Your task to perform on an android device: turn on airplane mode Image 0: 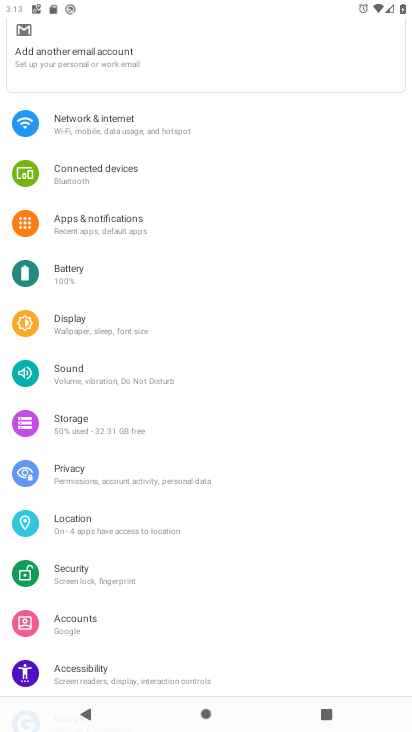
Step 0: click (305, 118)
Your task to perform on an android device: turn on airplane mode Image 1: 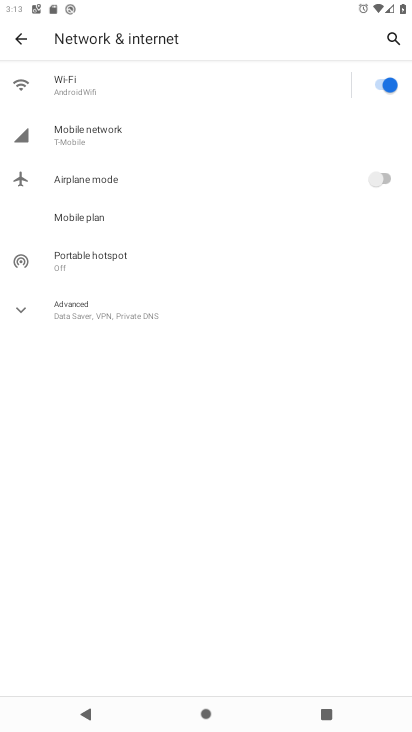
Step 1: click (384, 171)
Your task to perform on an android device: turn on airplane mode Image 2: 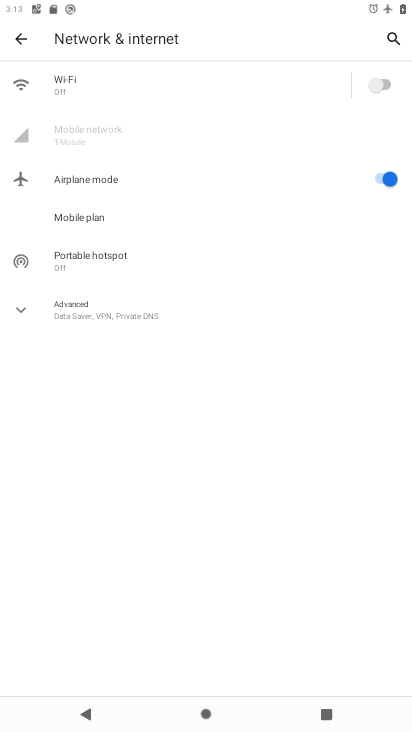
Step 2: task complete